Your task to perform on an android device: What's the weather going to be tomorrow? Image 0: 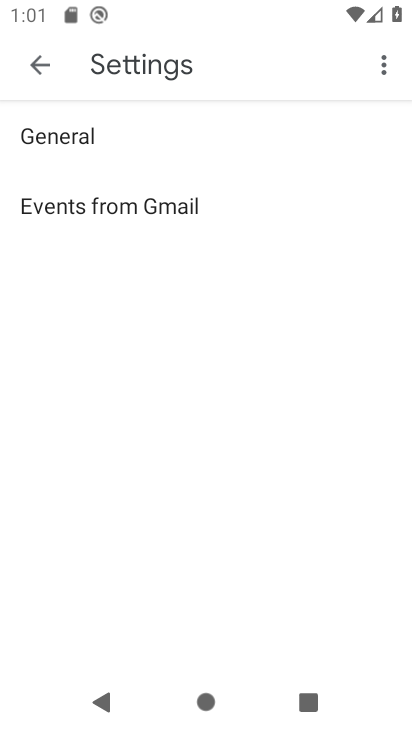
Step 0: press home button
Your task to perform on an android device: What's the weather going to be tomorrow? Image 1: 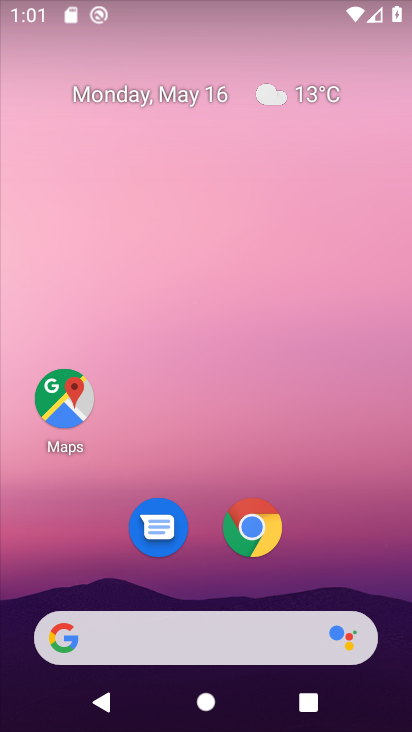
Step 1: click (246, 521)
Your task to perform on an android device: What's the weather going to be tomorrow? Image 2: 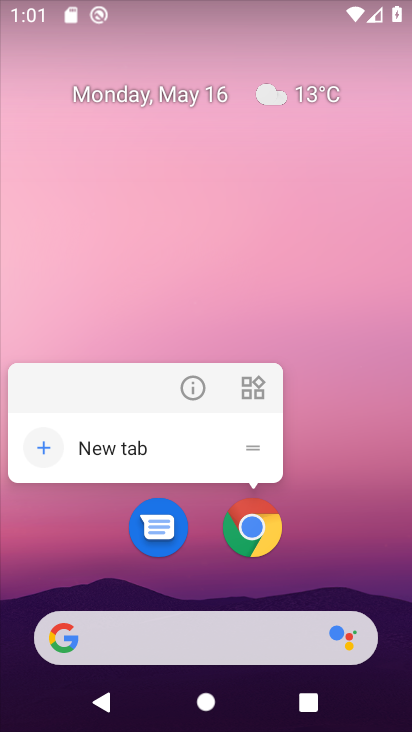
Step 2: click (254, 530)
Your task to perform on an android device: What's the weather going to be tomorrow? Image 3: 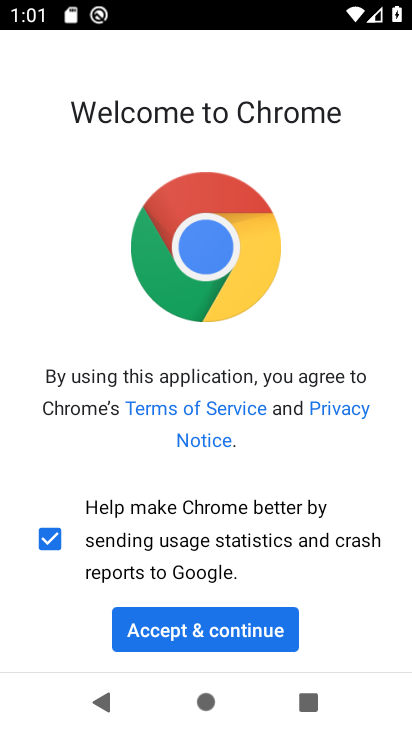
Step 3: click (204, 633)
Your task to perform on an android device: What's the weather going to be tomorrow? Image 4: 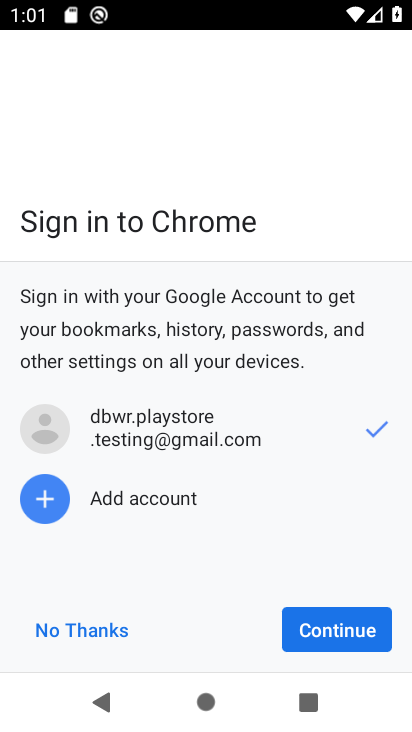
Step 4: click (358, 630)
Your task to perform on an android device: What's the weather going to be tomorrow? Image 5: 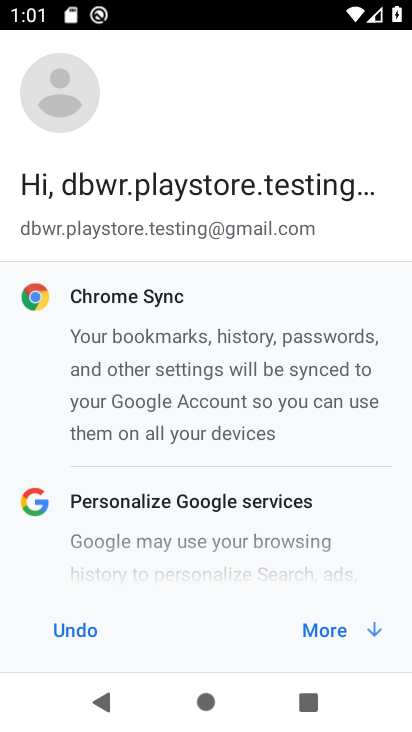
Step 5: click (321, 627)
Your task to perform on an android device: What's the weather going to be tomorrow? Image 6: 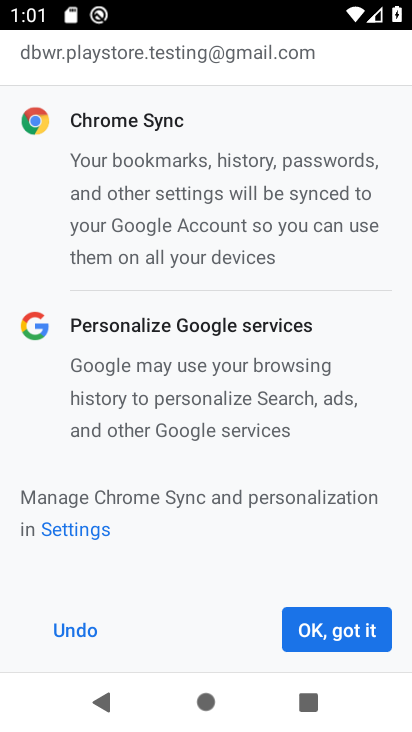
Step 6: click (321, 627)
Your task to perform on an android device: What's the weather going to be tomorrow? Image 7: 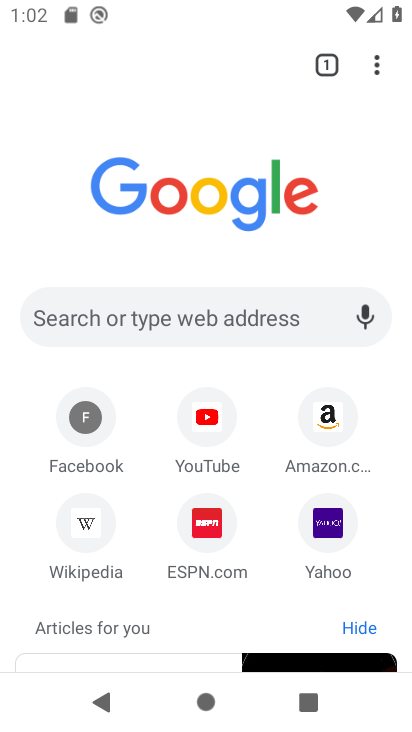
Step 7: click (153, 321)
Your task to perform on an android device: What's the weather going to be tomorrow? Image 8: 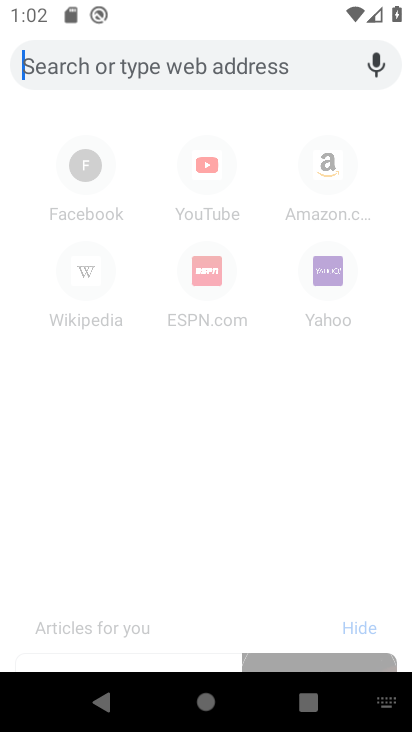
Step 8: type "What's the weather going to be tomorrow?"
Your task to perform on an android device: What's the weather going to be tomorrow? Image 9: 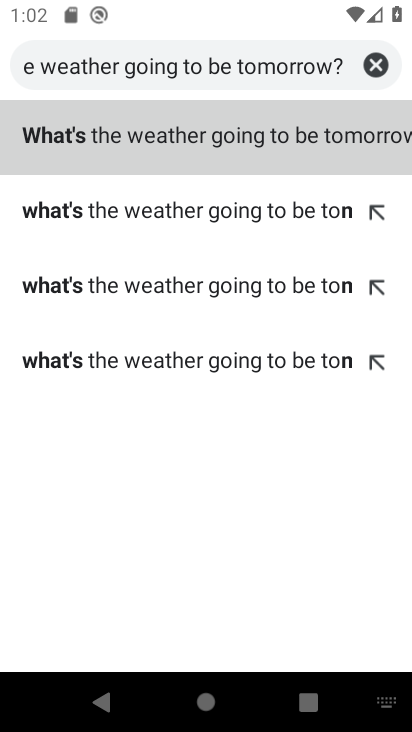
Step 9: click (291, 140)
Your task to perform on an android device: What's the weather going to be tomorrow? Image 10: 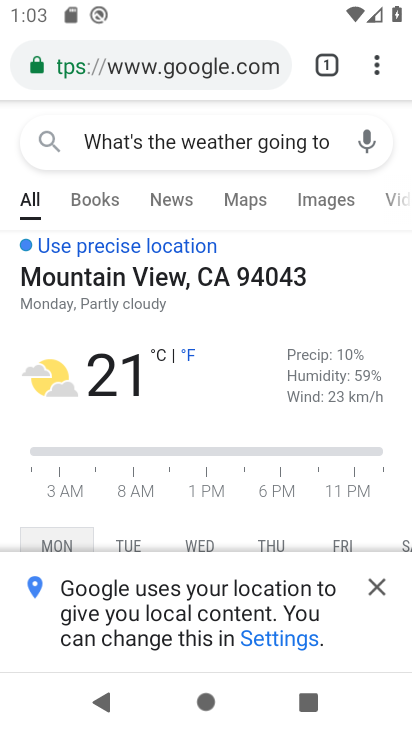
Step 10: task complete